Your task to perform on an android device: Open internet settings Image 0: 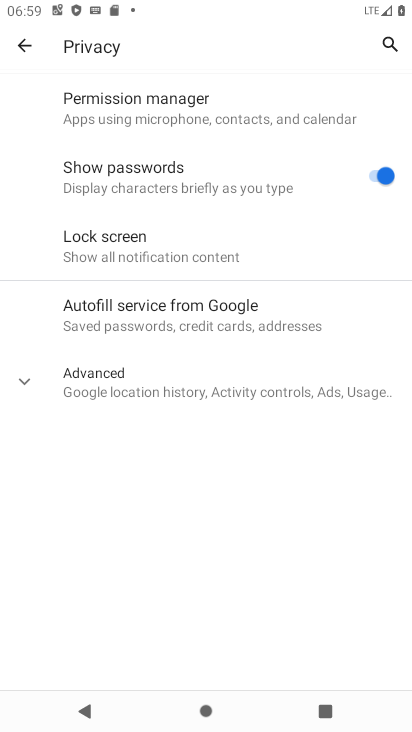
Step 0: press home button
Your task to perform on an android device: Open internet settings Image 1: 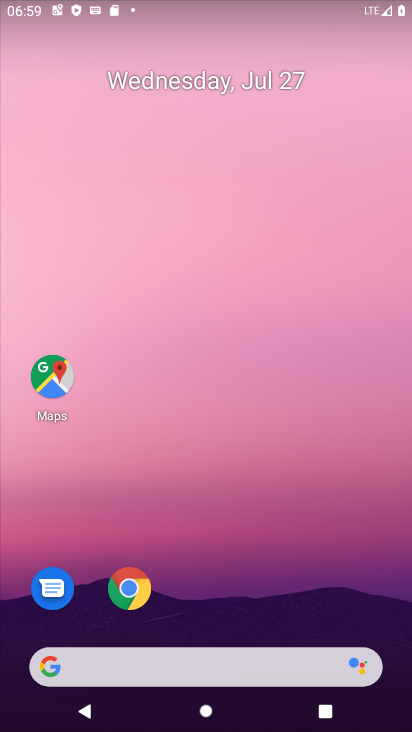
Step 1: drag from (238, 607) to (319, 1)
Your task to perform on an android device: Open internet settings Image 2: 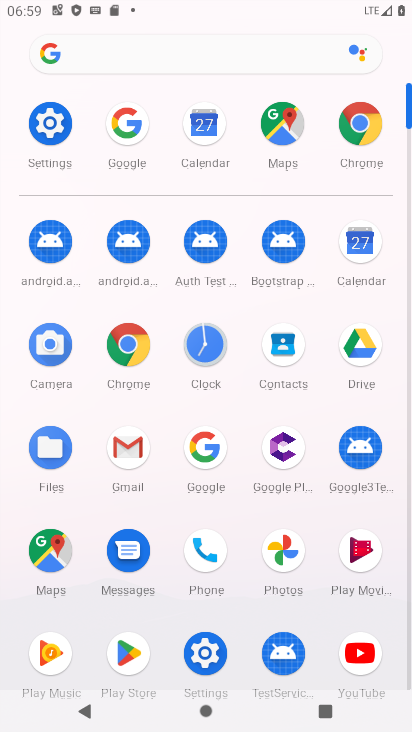
Step 2: click (50, 125)
Your task to perform on an android device: Open internet settings Image 3: 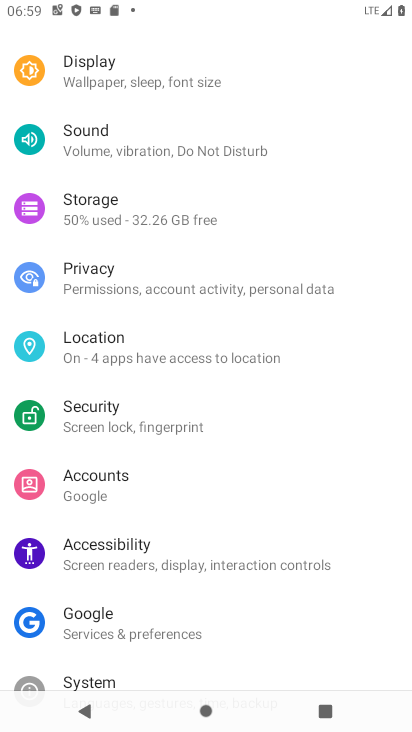
Step 3: drag from (175, 141) to (178, 461)
Your task to perform on an android device: Open internet settings Image 4: 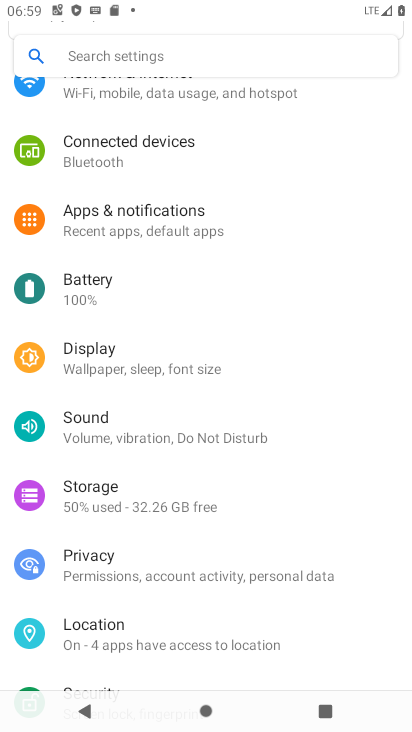
Step 4: click (197, 93)
Your task to perform on an android device: Open internet settings Image 5: 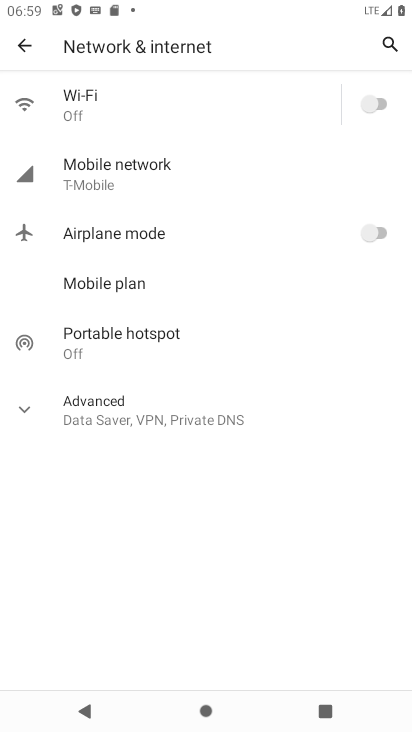
Step 5: task complete